Your task to perform on an android device: What's the weather today? Image 0: 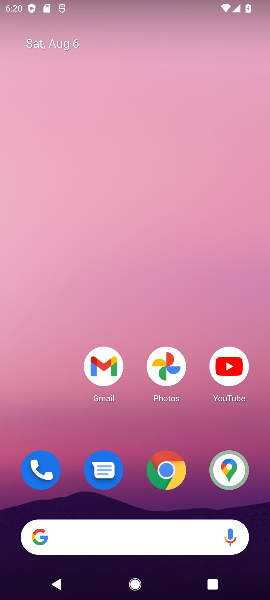
Step 0: drag from (132, 471) to (148, 6)
Your task to perform on an android device: What's the weather today? Image 1: 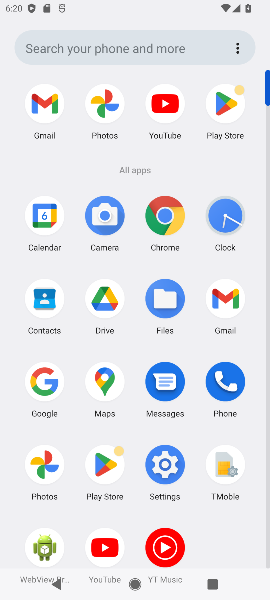
Step 1: click (162, 205)
Your task to perform on an android device: What's the weather today? Image 2: 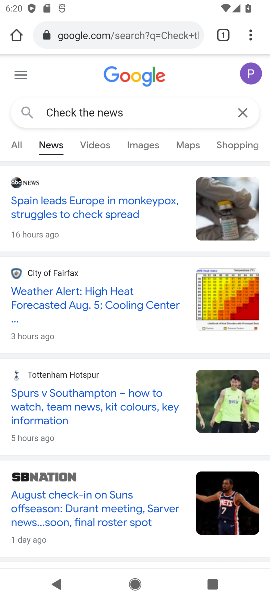
Step 2: click (97, 34)
Your task to perform on an android device: What's the weather today? Image 3: 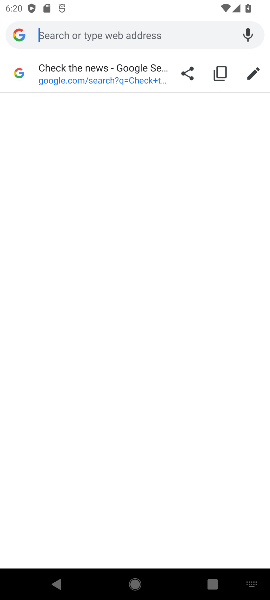
Step 3: type "What's the weather today?"
Your task to perform on an android device: What's the weather today? Image 4: 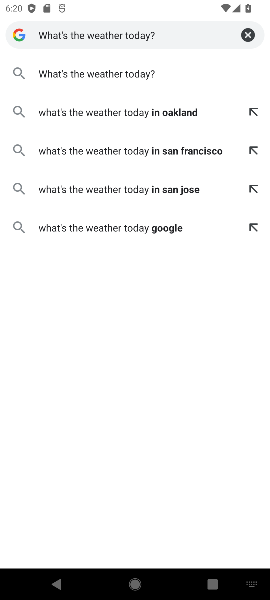
Step 4: click (92, 72)
Your task to perform on an android device: What's the weather today? Image 5: 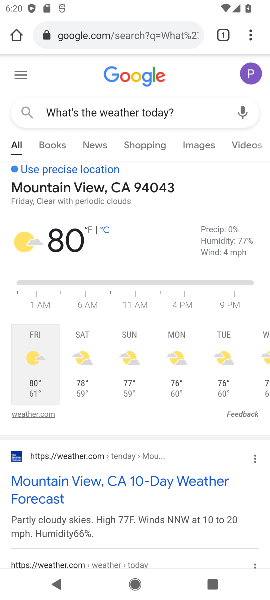
Step 5: click (93, 143)
Your task to perform on an android device: What's the weather today? Image 6: 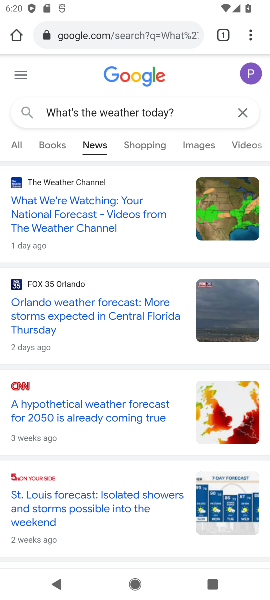
Step 6: task complete